Your task to perform on an android device: Open ESPN.com Image 0: 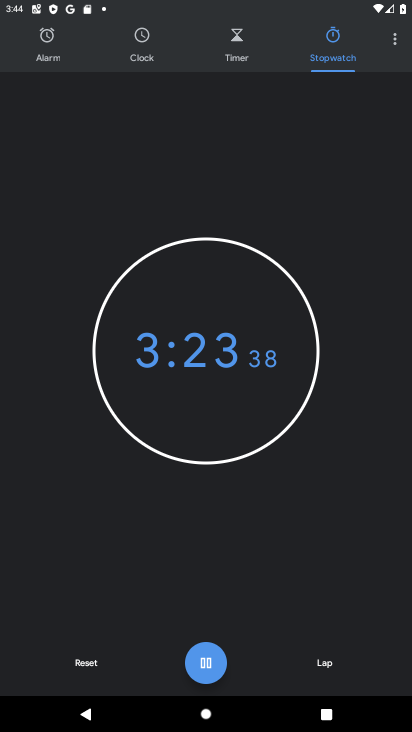
Step 0: press home button
Your task to perform on an android device: Open ESPN.com Image 1: 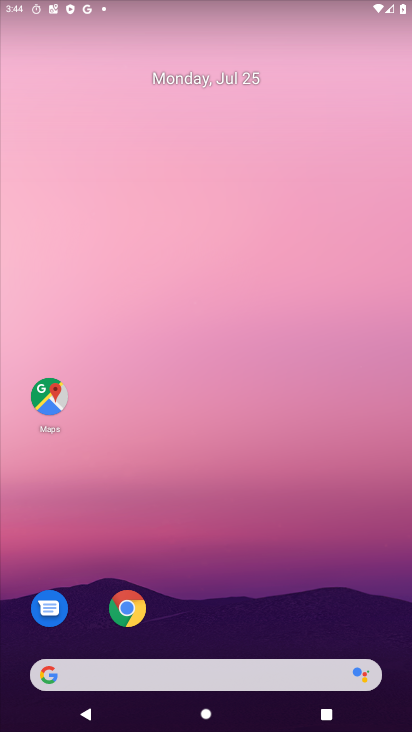
Step 1: click (121, 602)
Your task to perform on an android device: Open ESPN.com Image 2: 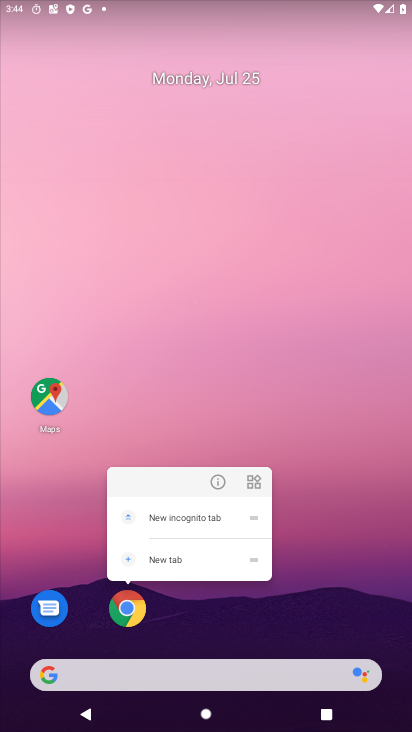
Step 2: click (127, 605)
Your task to perform on an android device: Open ESPN.com Image 3: 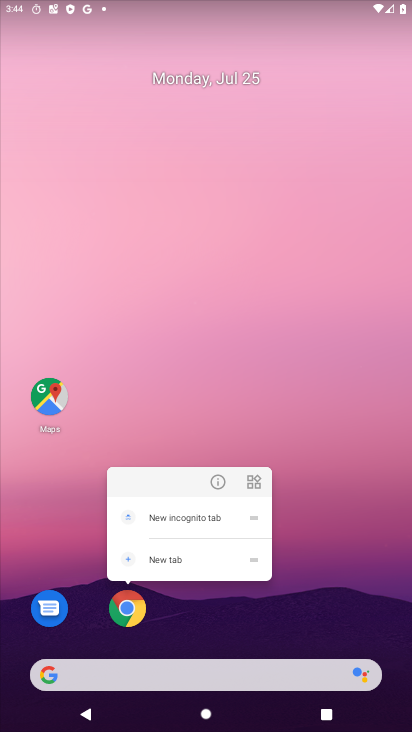
Step 3: click (127, 605)
Your task to perform on an android device: Open ESPN.com Image 4: 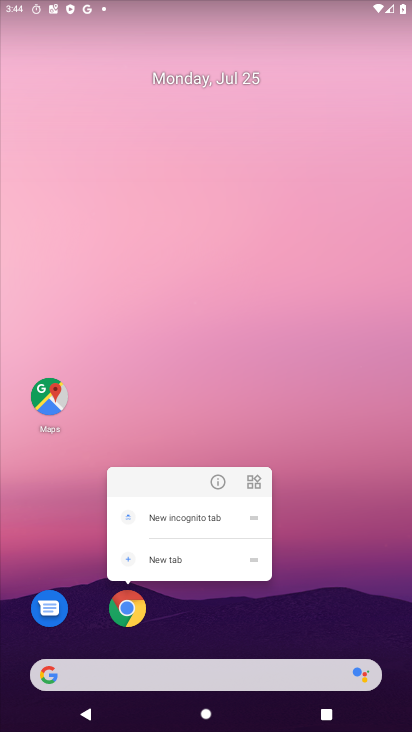
Step 4: click (127, 604)
Your task to perform on an android device: Open ESPN.com Image 5: 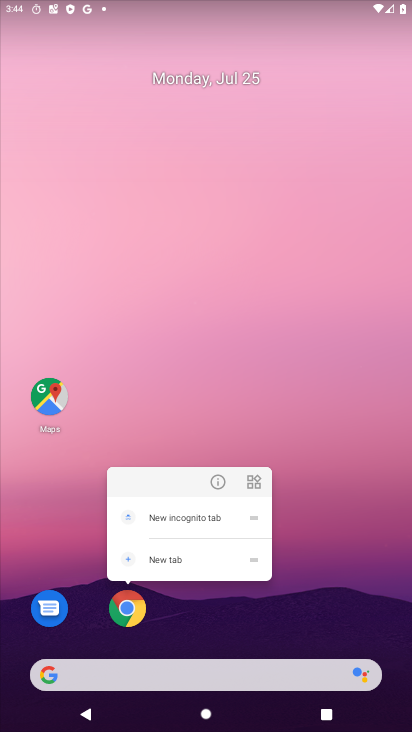
Step 5: click (125, 604)
Your task to perform on an android device: Open ESPN.com Image 6: 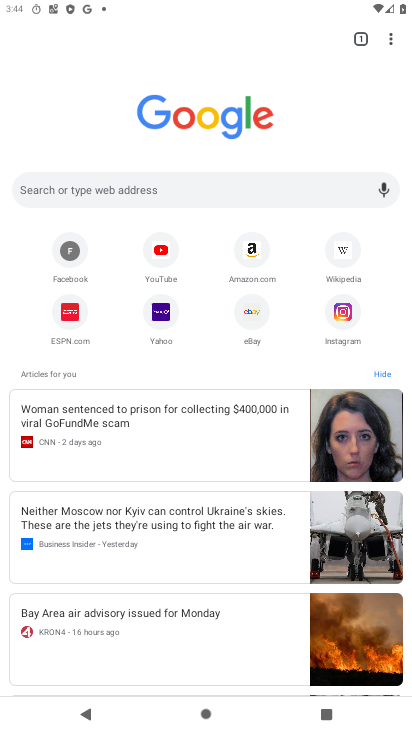
Step 6: click (73, 308)
Your task to perform on an android device: Open ESPN.com Image 7: 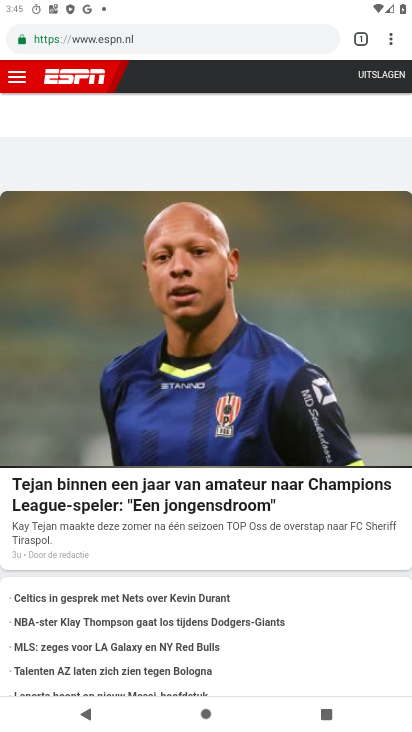
Step 7: drag from (210, 571) to (226, 119)
Your task to perform on an android device: Open ESPN.com Image 8: 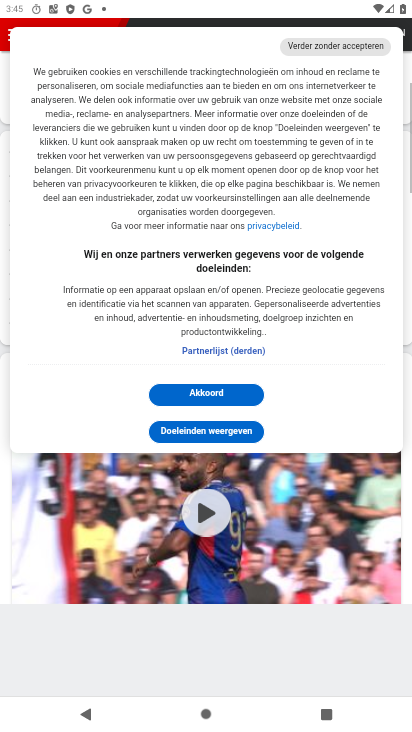
Step 8: click (203, 389)
Your task to perform on an android device: Open ESPN.com Image 9: 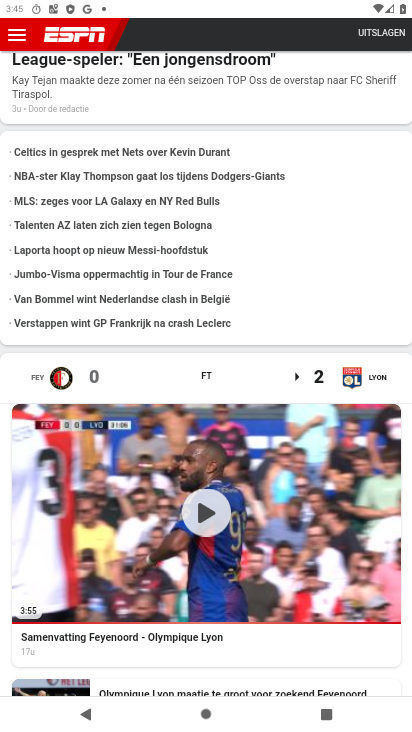
Step 9: task complete